Your task to perform on an android device: Open privacy settings Image 0: 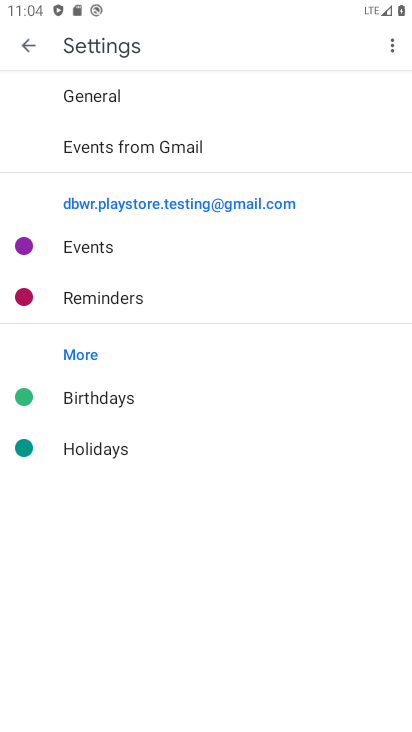
Step 0: press back button
Your task to perform on an android device: Open privacy settings Image 1: 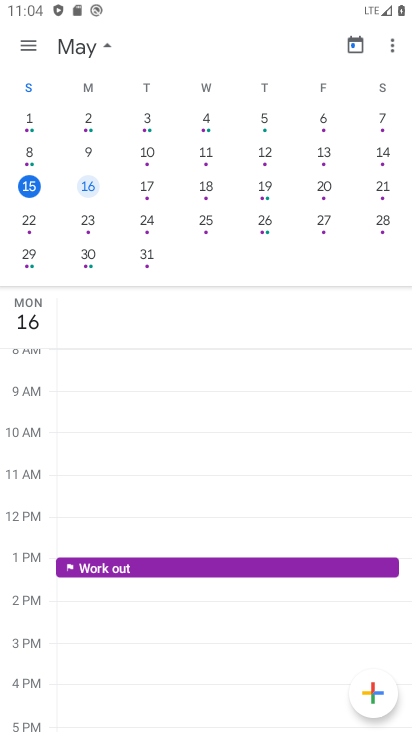
Step 1: press home button
Your task to perform on an android device: Open privacy settings Image 2: 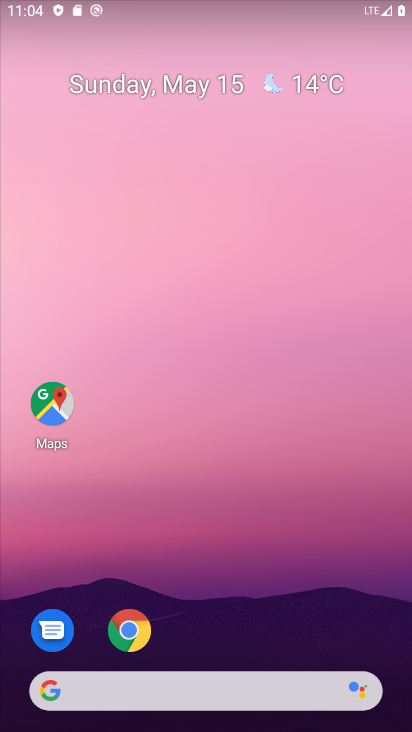
Step 2: drag from (19, 652) to (347, 99)
Your task to perform on an android device: Open privacy settings Image 3: 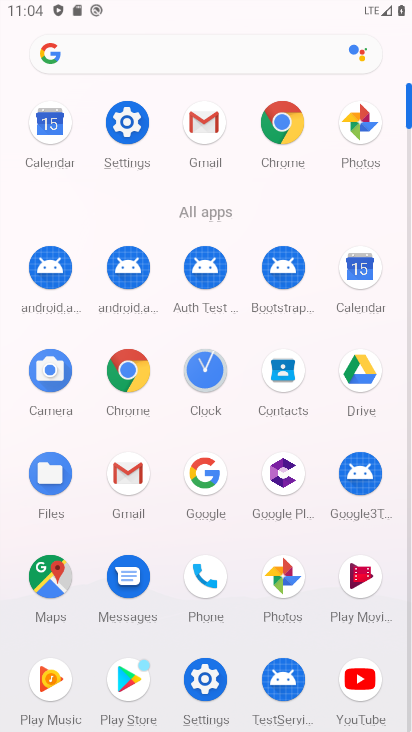
Step 3: click (117, 133)
Your task to perform on an android device: Open privacy settings Image 4: 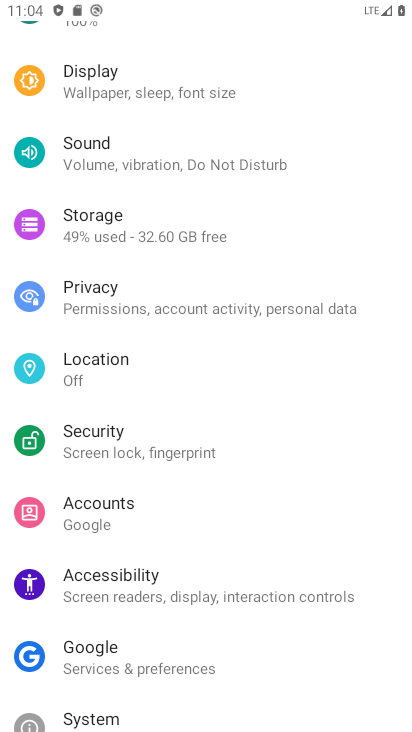
Step 4: drag from (75, 654) to (197, 259)
Your task to perform on an android device: Open privacy settings Image 5: 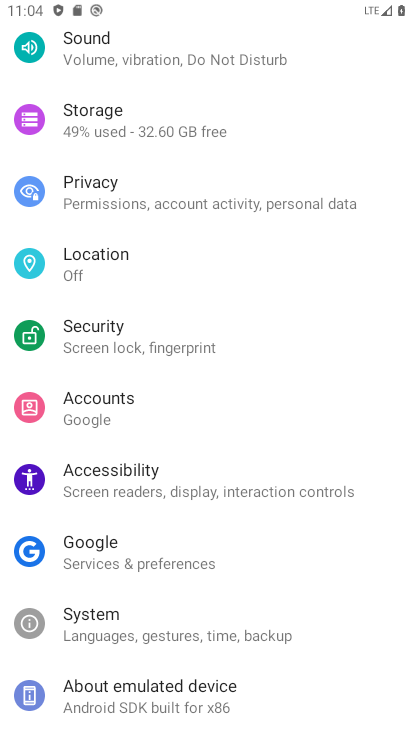
Step 5: drag from (146, 133) to (144, 638)
Your task to perform on an android device: Open privacy settings Image 6: 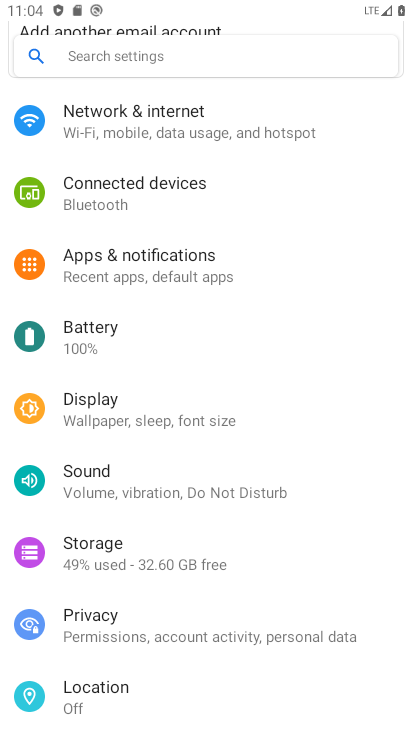
Step 6: drag from (131, 70) to (144, 542)
Your task to perform on an android device: Open privacy settings Image 7: 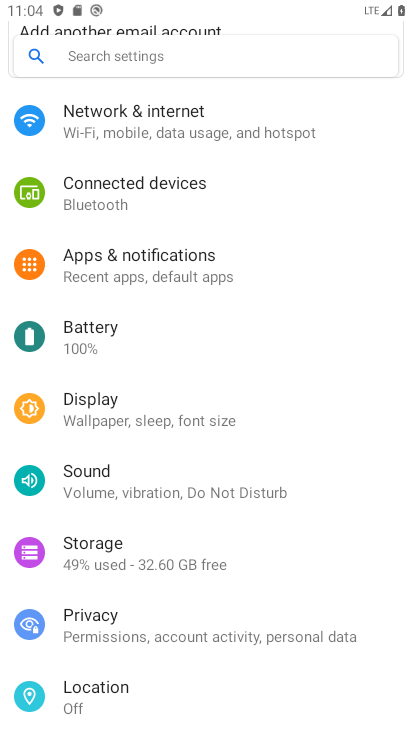
Step 7: drag from (113, 183) to (115, 606)
Your task to perform on an android device: Open privacy settings Image 8: 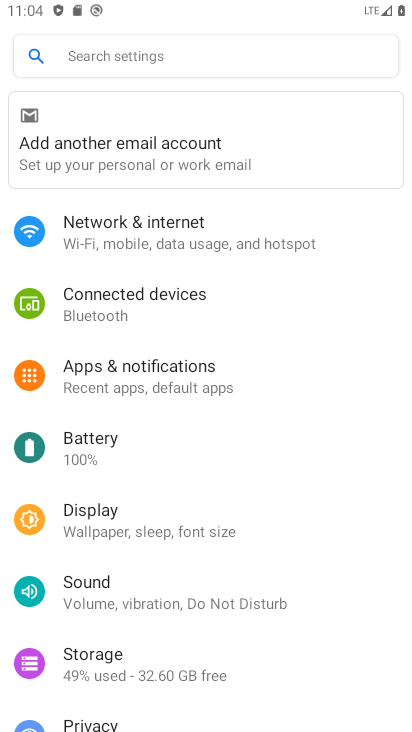
Step 8: click (80, 719)
Your task to perform on an android device: Open privacy settings Image 9: 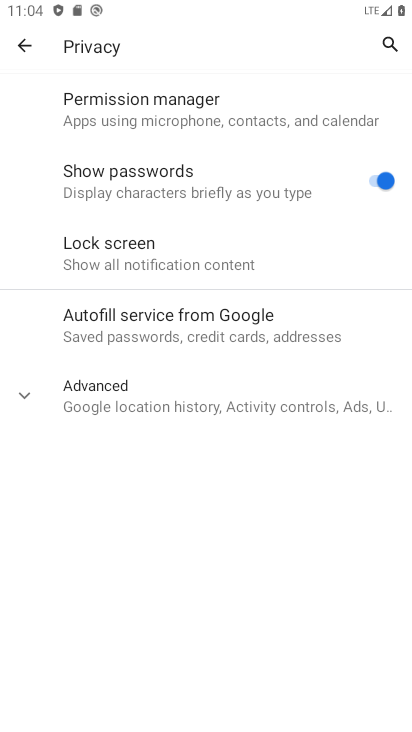
Step 9: task complete